Your task to perform on an android device: Open Youtube and go to "Your channel" Image 0: 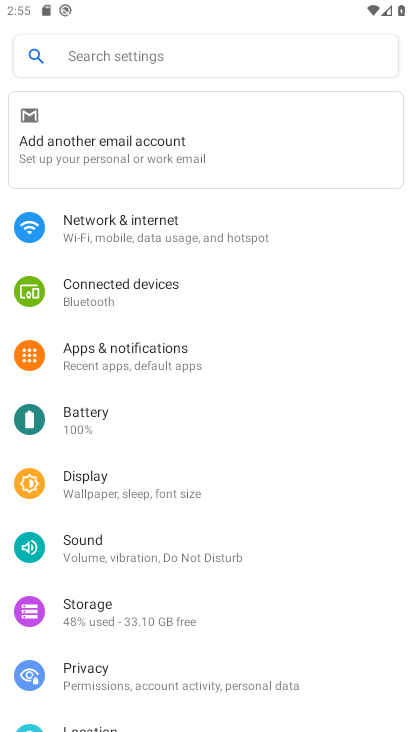
Step 0: press home button
Your task to perform on an android device: Open Youtube and go to "Your channel" Image 1: 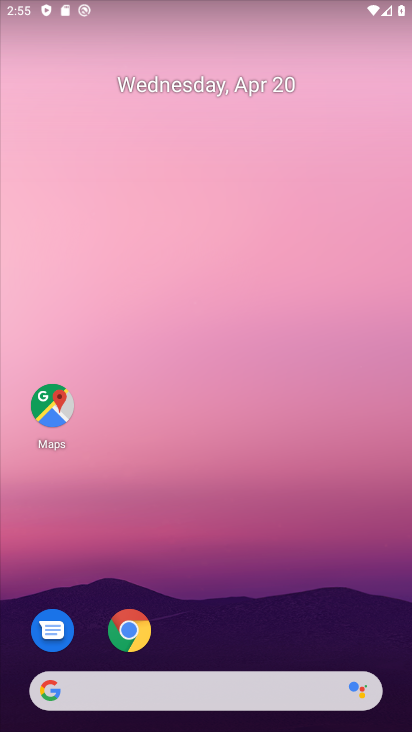
Step 1: drag from (292, 659) to (317, 334)
Your task to perform on an android device: Open Youtube and go to "Your channel" Image 2: 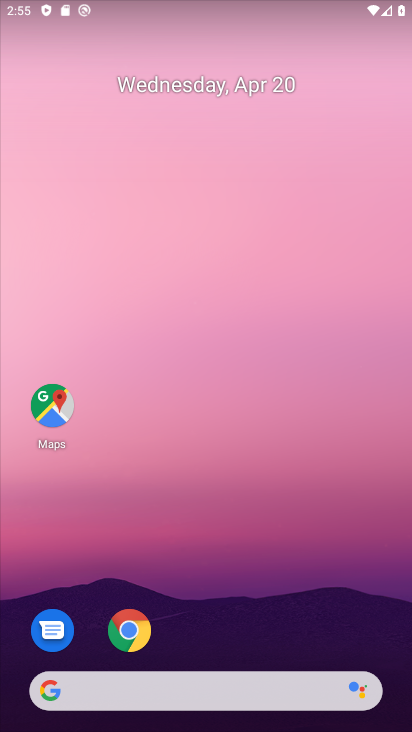
Step 2: drag from (238, 660) to (304, 215)
Your task to perform on an android device: Open Youtube and go to "Your channel" Image 3: 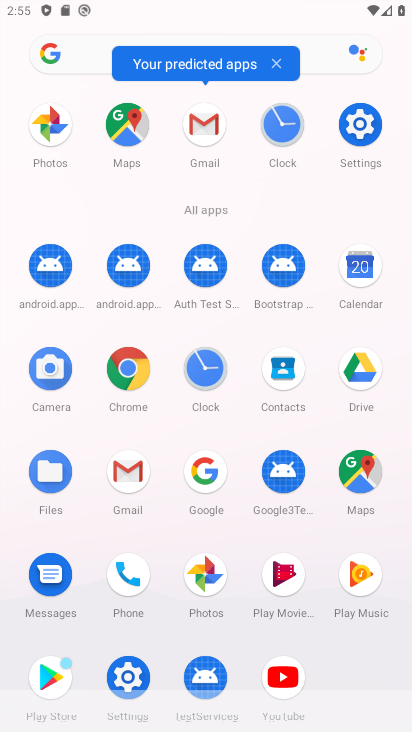
Step 3: drag from (262, 609) to (292, 373)
Your task to perform on an android device: Open Youtube and go to "Your channel" Image 4: 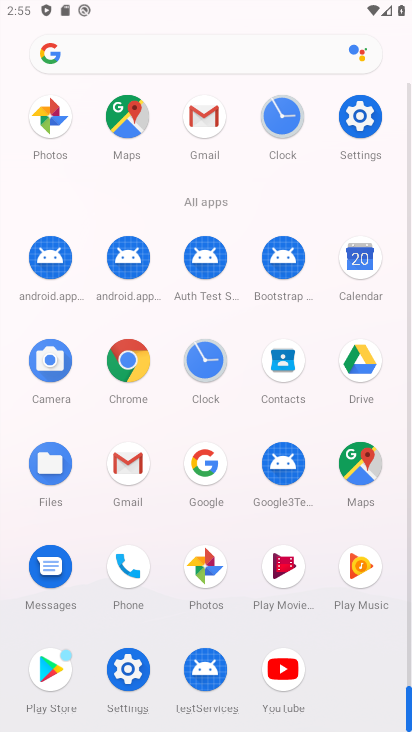
Step 4: click (287, 659)
Your task to perform on an android device: Open Youtube and go to "Your channel" Image 5: 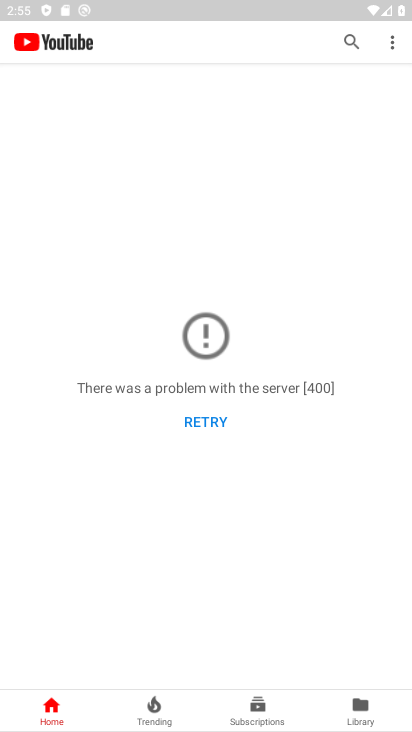
Step 5: click (53, 703)
Your task to perform on an android device: Open Youtube and go to "Your channel" Image 6: 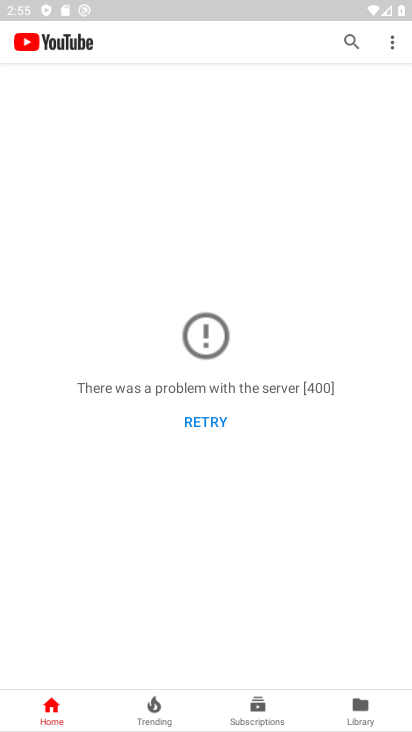
Step 6: click (341, 54)
Your task to perform on an android device: Open Youtube and go to "Your channel" Image 7: 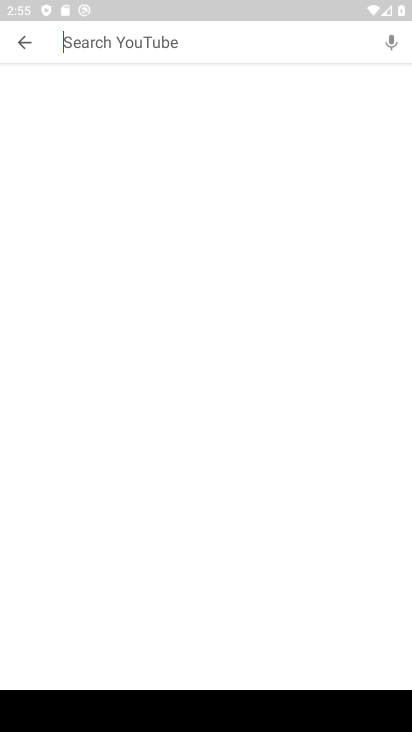
Step 7: type "india"
Your task to perform on an android device: Open Youtube and go to "Your channel" Image 8: 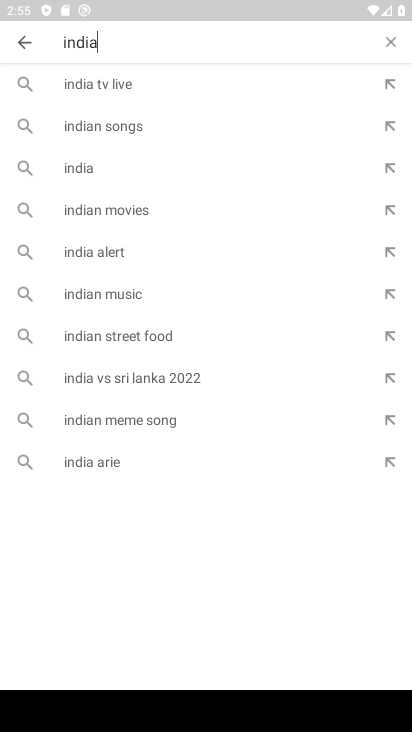
Step 8: click (132, 128)
Your task to perform on an android device: Open Youtube and go to "Your channel" Image 9: 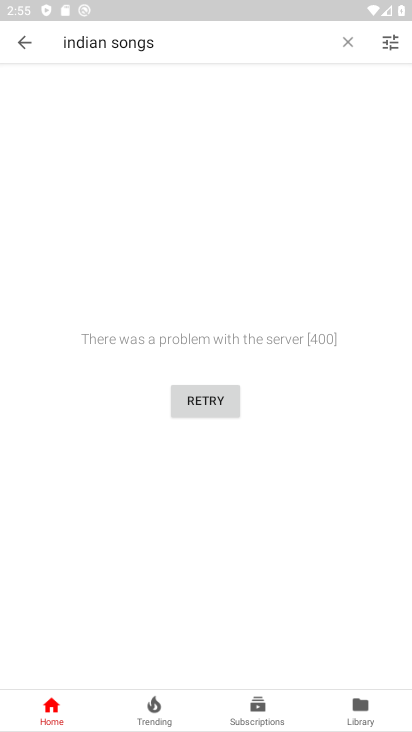
Step 9: task complete